Your task to perform on an android device: check storage Image 0: 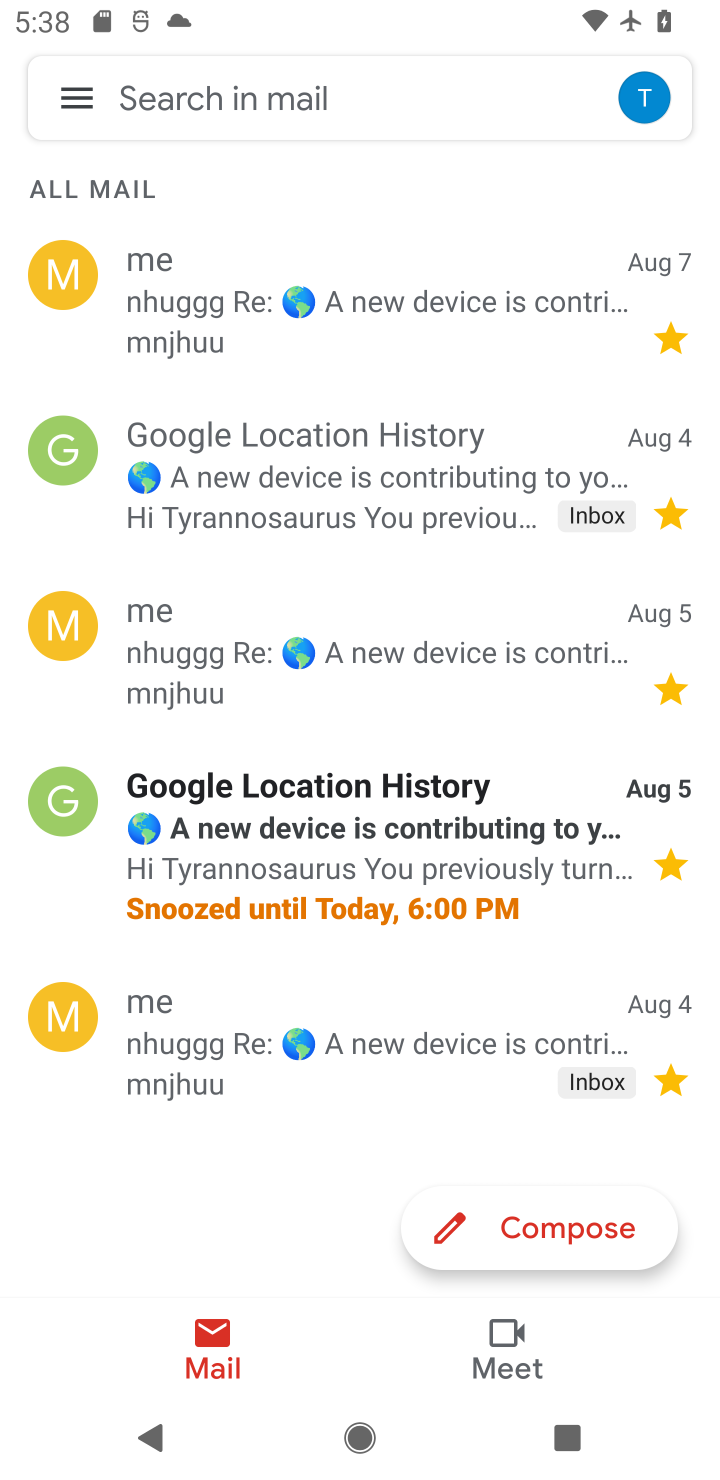
Step 0: press home button
Your task to perform on an android device: check storage Image 1: 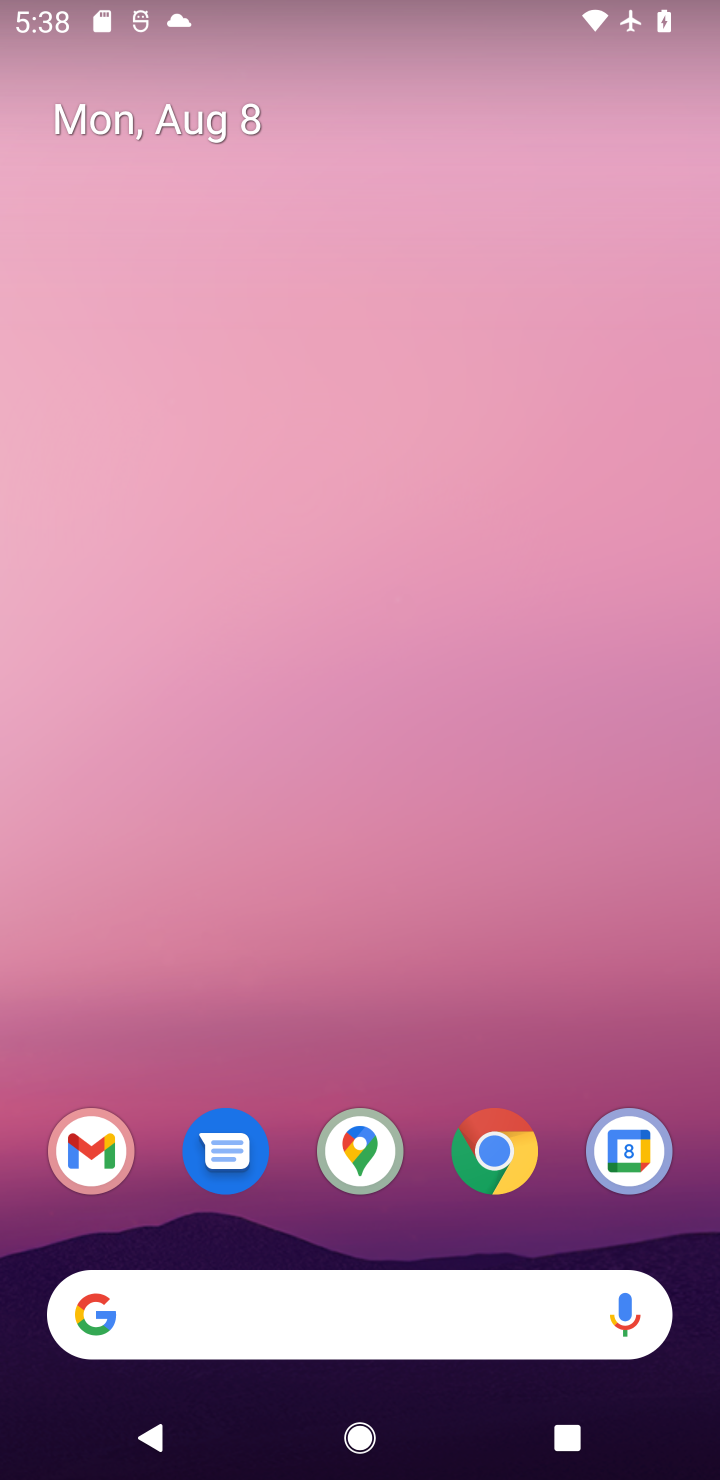
Step 1: drag from (412, 1033) to (415, 294)
Your task to perform on an android device: check storage Image 2: 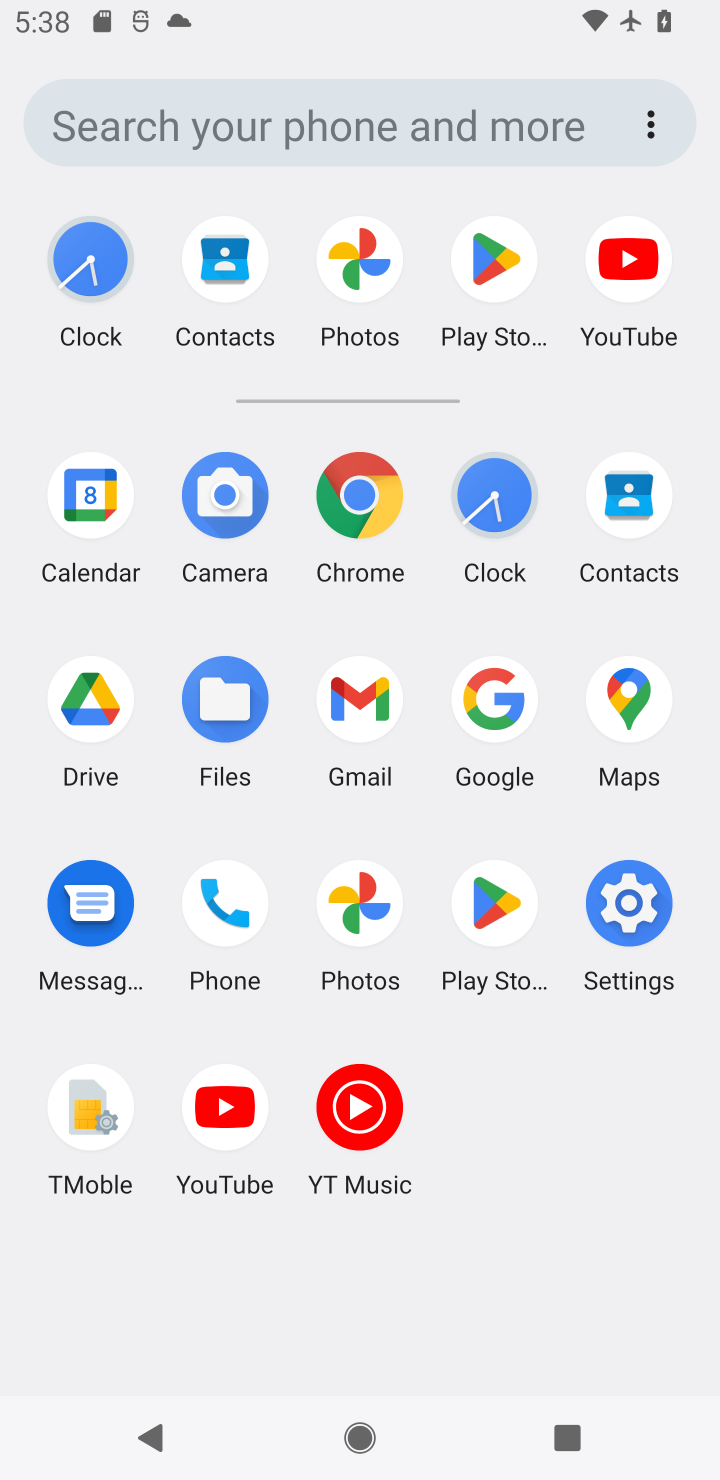
Step 2: click (612, 920)
Your task to perform on an android device: check storage Image 3: 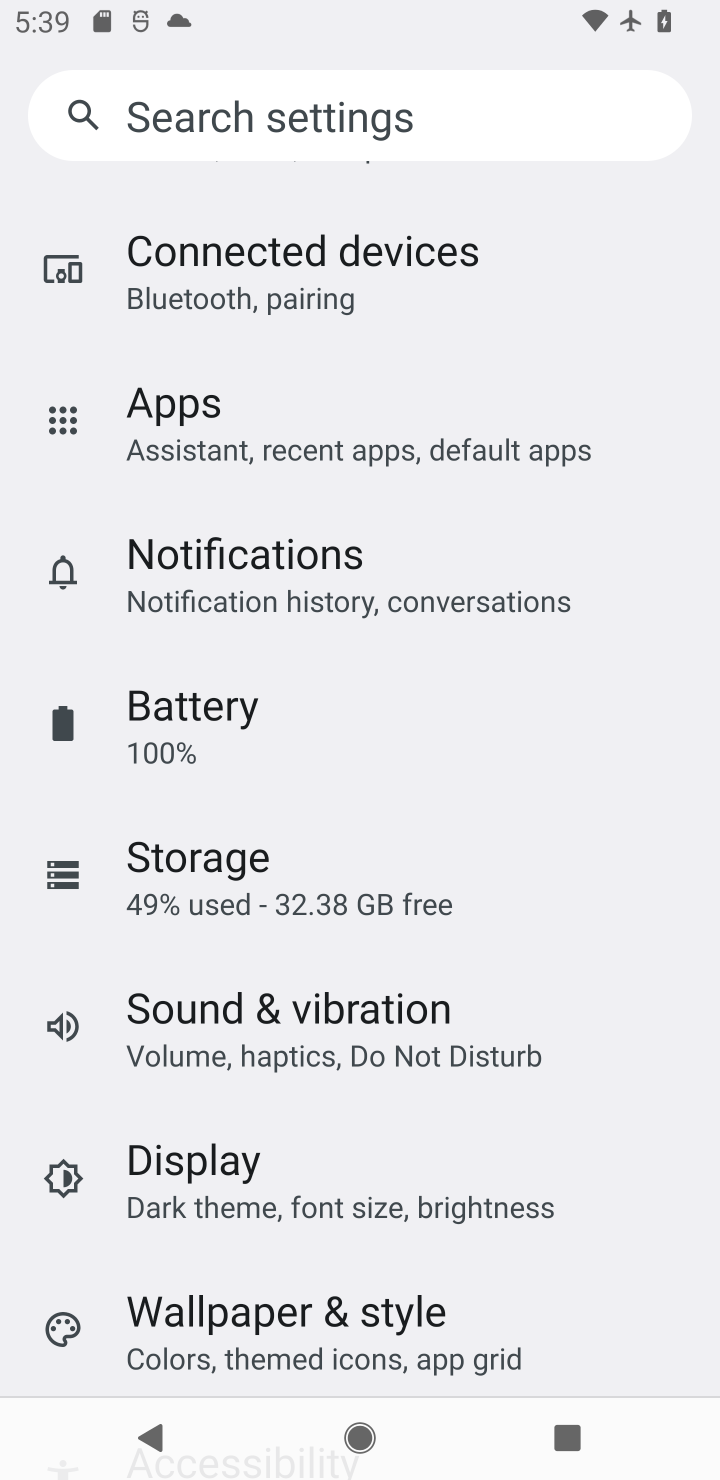
Step 3: click (256, 895)
Your task to perform on an android device: check storage Image 4: 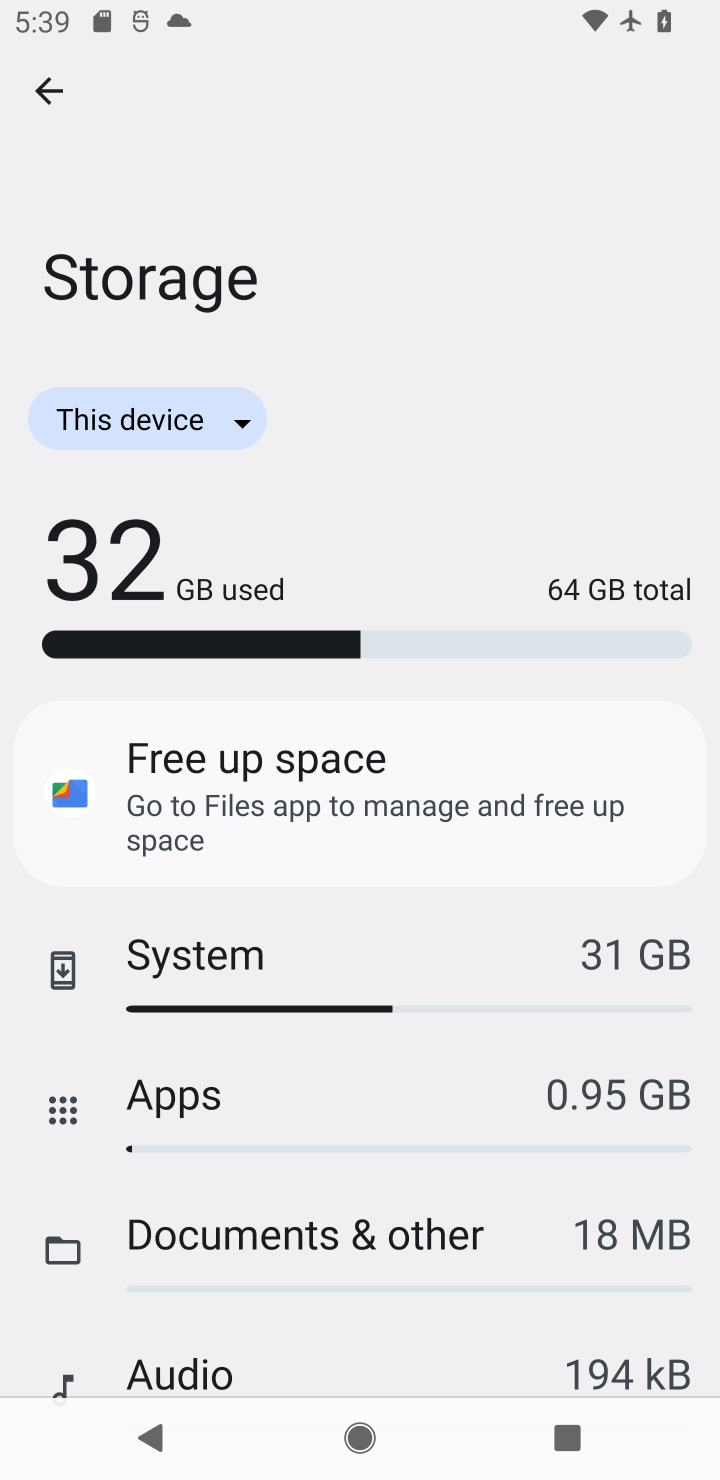
Step 4: task complete